Your task to perform on an android device: delete a single message in the gmail app Image 0: 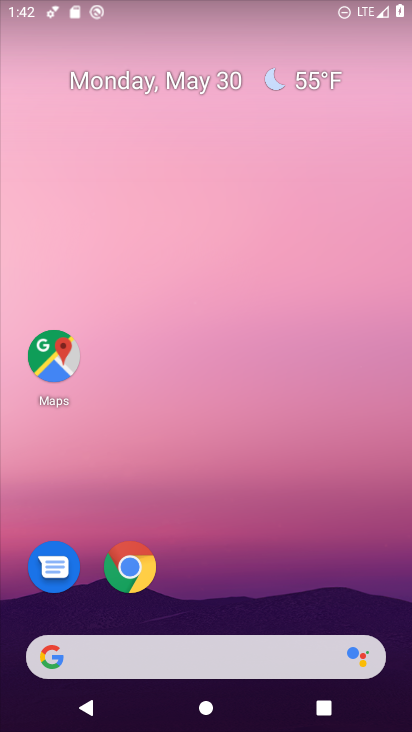
Step 0: drag from (216, 601) to (216, 226)
Your task to perform on an android device: delete a single message in the gmail app Image 1: 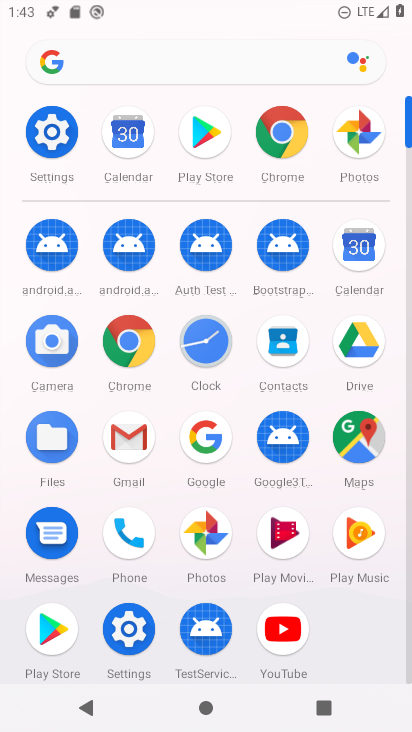
Step 1: click (124, 430)
Your task to perform on an android device: delete a single message in the gmail app Image 2: 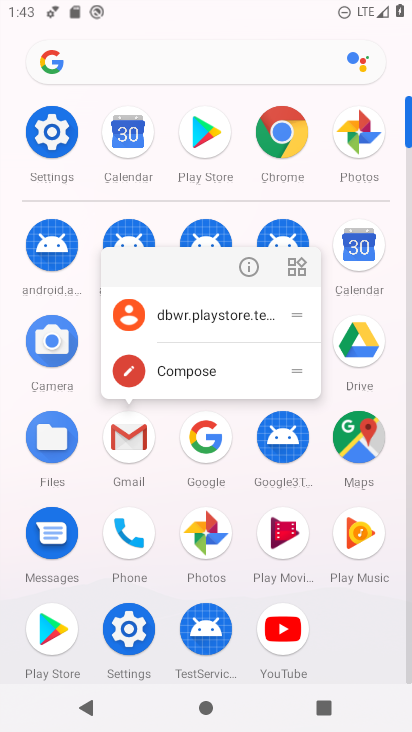
Step 2: click (125, 435)
Your task to perform on an android device: delete a single message in the gmail app Image 3: 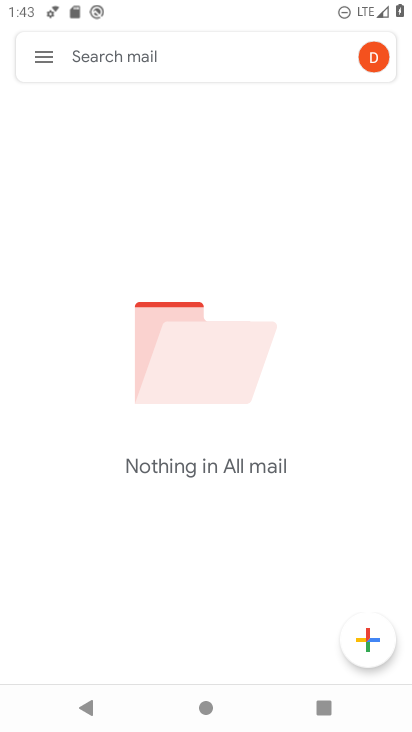
Step 3: task complete